Your task to perform on an android device: Go to ESPN.com Image 0: 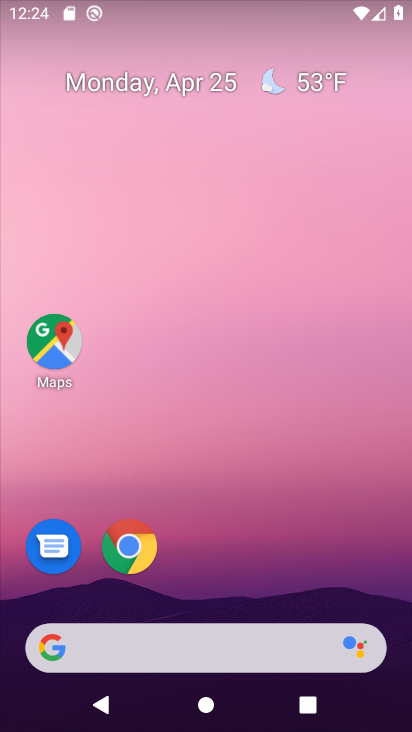
Step 0: click (127, 545)
Your task to perform on an android device: Go to ESPN.com Image 1: 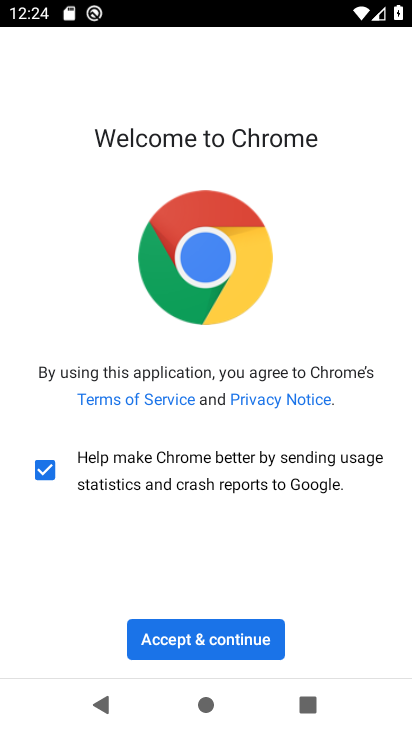
Step 1: click (170, 646)
Your task to perform on an android device: Go to ESPN.com Image 2: 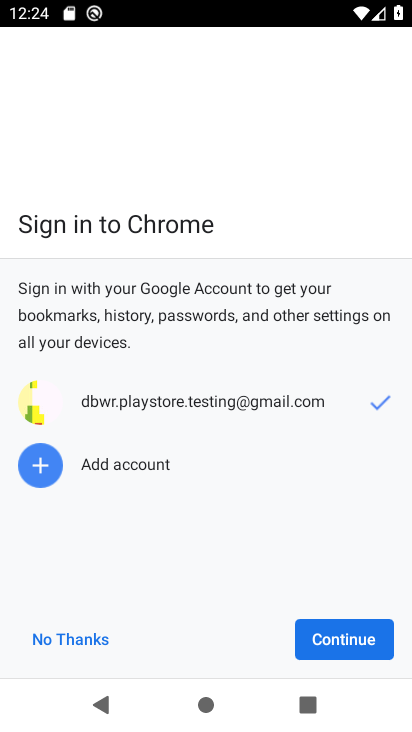
Step 2: click (347, 637)
Your task to perform on an android device: Go to ESPN.com Image 3: 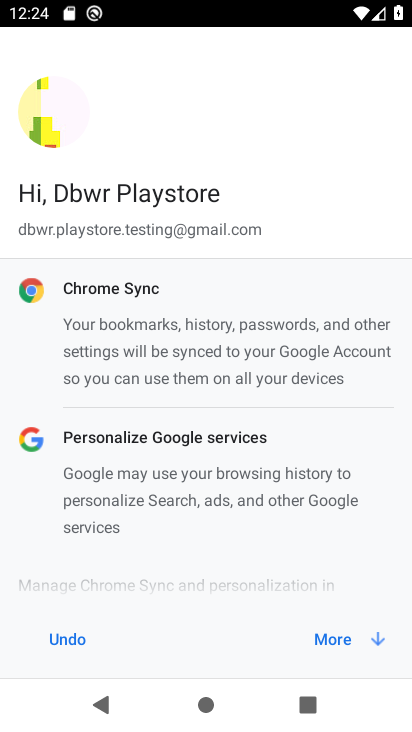
Step 3: click (347, 637)
Your task to perform on an android device: Go to ESPN.com Image 4: 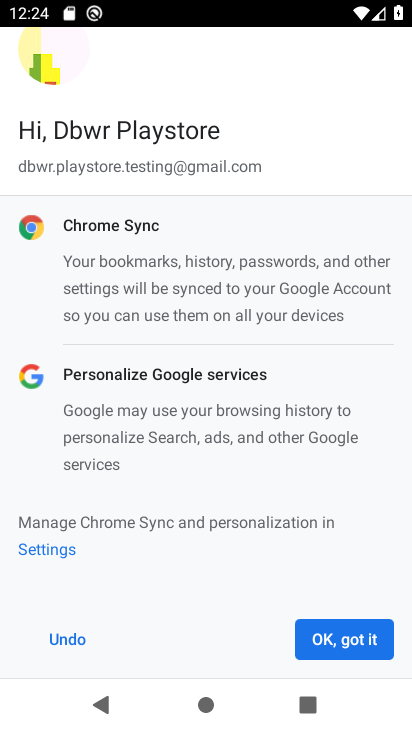
Step 4: click (330, 639)
Your task to perform on an android device: Go to ESPN.com Image 5: 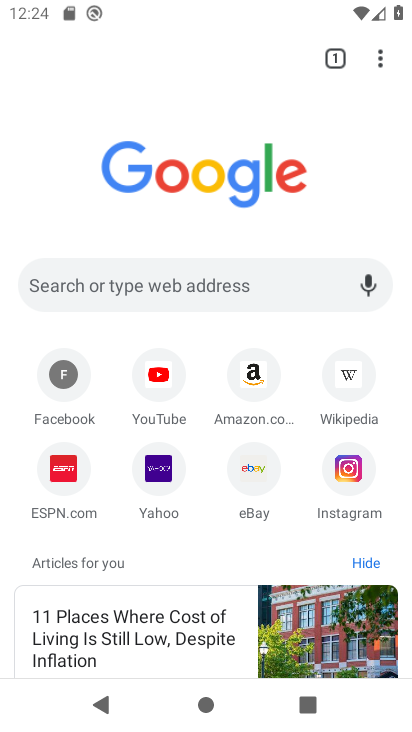
Step 5: click (71, 460)
Your task to perform on an android device: Go to ESPN.com Image 6: 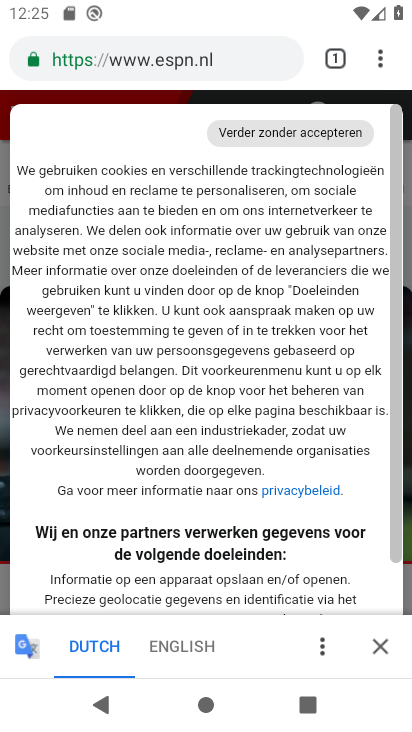
Step 6: task complete